Your task to perform on an android device: toggle translation in the chrome app Image 0: 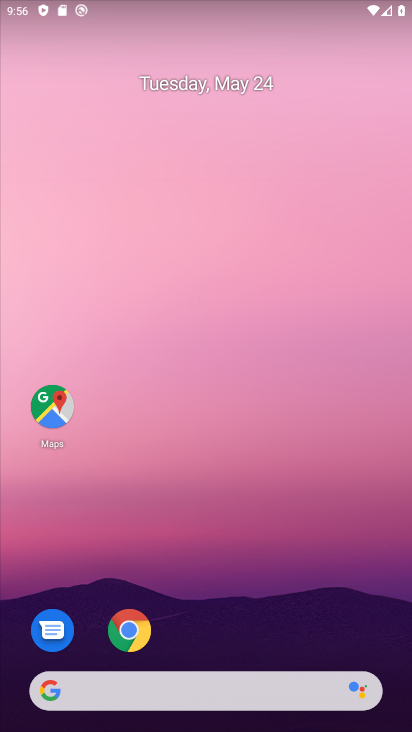
Step 0: press home button
Your task to perform on an android device: toggle translation in the chrome app Image 1: 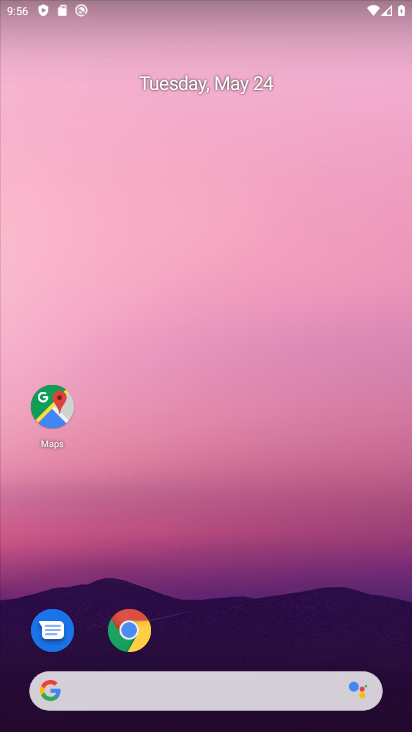
Step 1: click (124, 629)
Your task to perform on an android device: toggle translation in the chrome app Image 2: 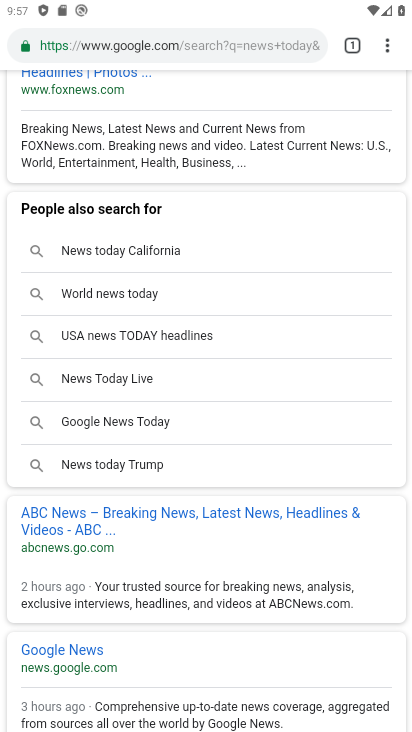
Step 2: click (389, 56)
Your task to perform on an android device: toggle translation in the chrome app Image 3: 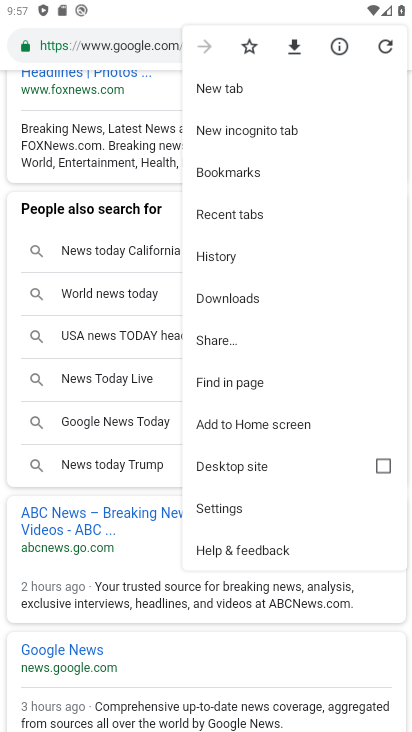
Step 3: click (246, 505)
Your task to perform on an android device: toggle translation in the chrome app Image 4: 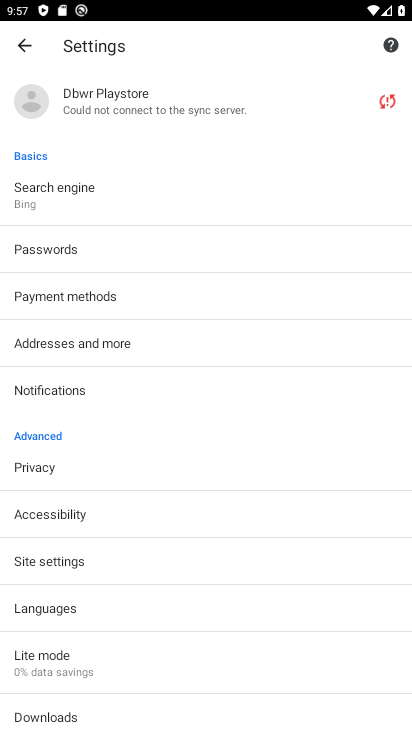
Step 4: click (98, 608)
Your task to perform on an android device: toggle translation in the chrome app Image 5: 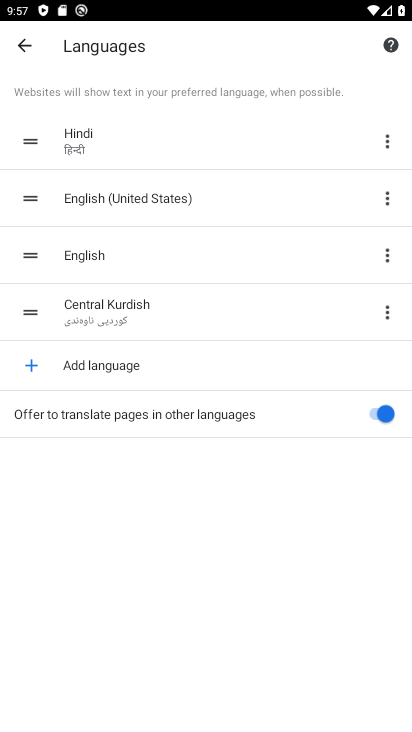
Step 5: click (375, 416)
Your task to perform on an android device: toggle translation in the chrome app Image 6: 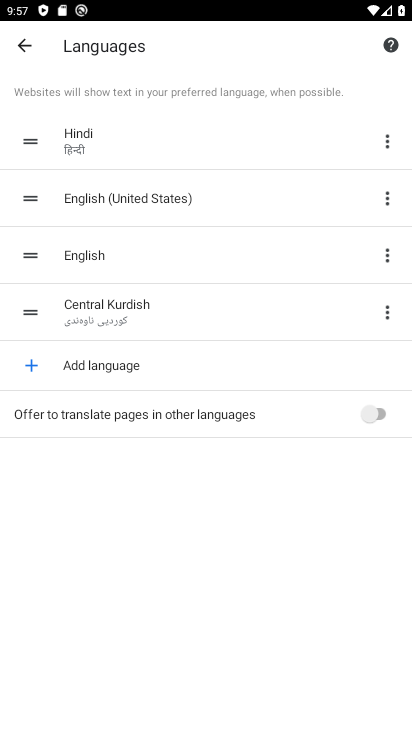
Step 6: task complete